Your task to perform on an android device: turn on priority inbox in the gmail app Image 0: 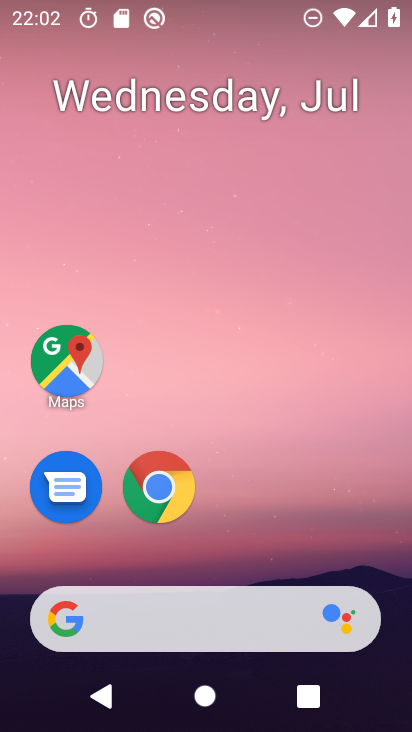
Step 0: drag from (378, 520) to (396, 101)
Your task to perform on an android device: turn on priority inbox in the gmail app Image 1: 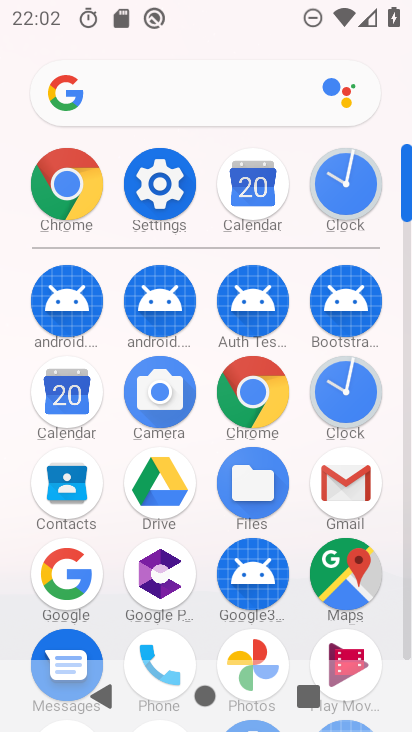
Step 1: click (356, 475)
Your task to perform on an android device: turn on priority inbox in the gmail app Image 2: 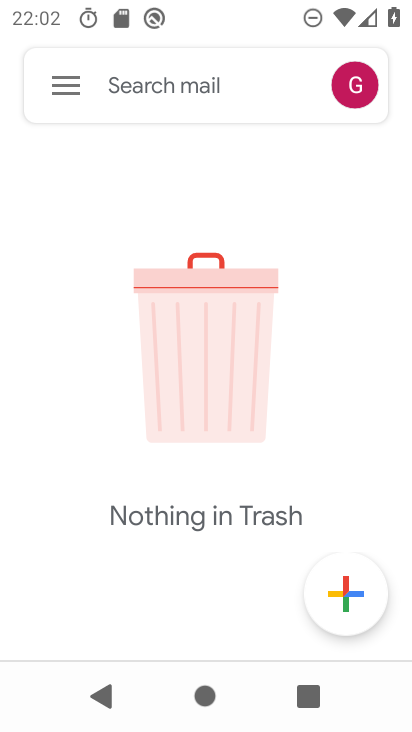
Step 2: click (61, 82)
Your task to perform on an android device: turn on priority inbox in the gmail app Image 3: 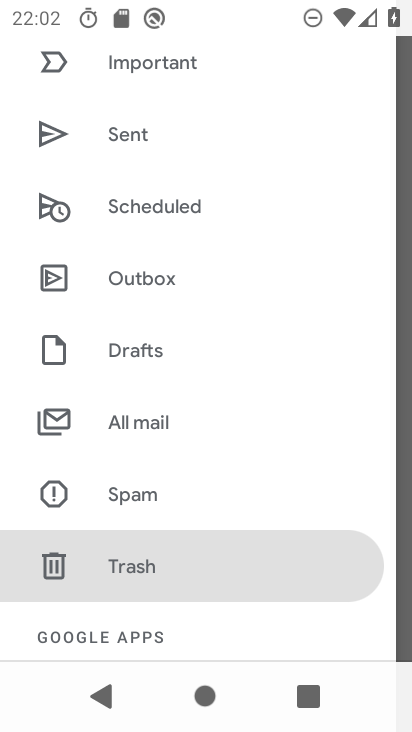
Step 3: drag from (303, 459) to (315, 336)
Your task to perform on an android device: turn on priority inbox in the gmail app Image 4: 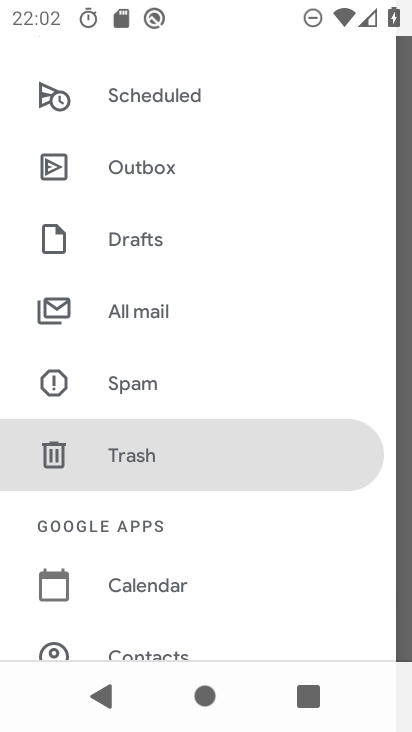
Step 4: drag from (316, 541) to (324, 370)
Your task to perform on an android device: turn on priority inbox in the gmail app Image 5: 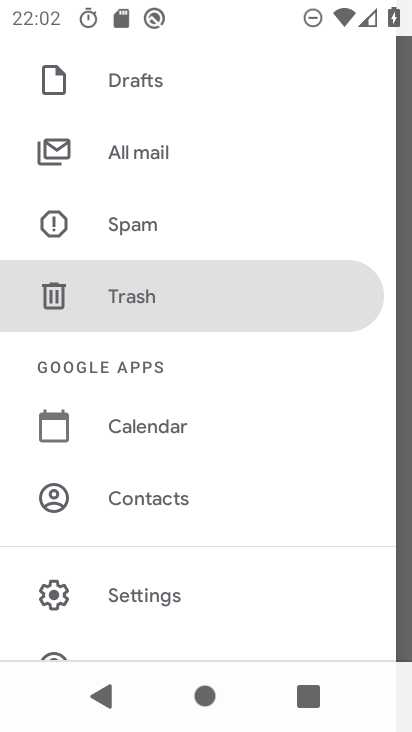
Step 5: drag from (308, 572) to (311, 425)
Your task to perform on an android device: turn on priority inbox in the gmail app Image 6: 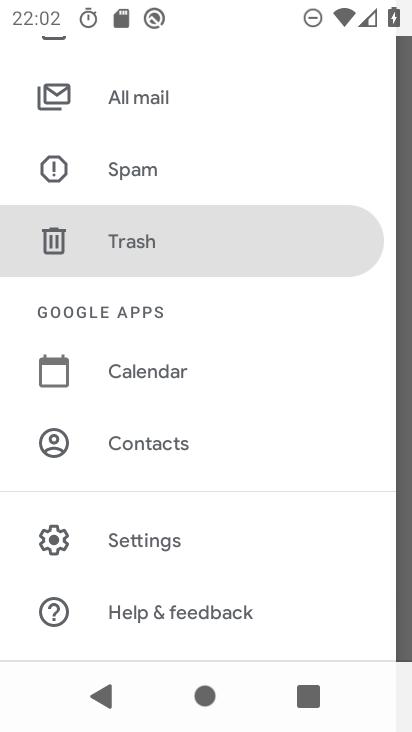
Step 6: click (269, 538)
Your task to perform on an android device: turn on priority inbox in the gmail app Image 7: 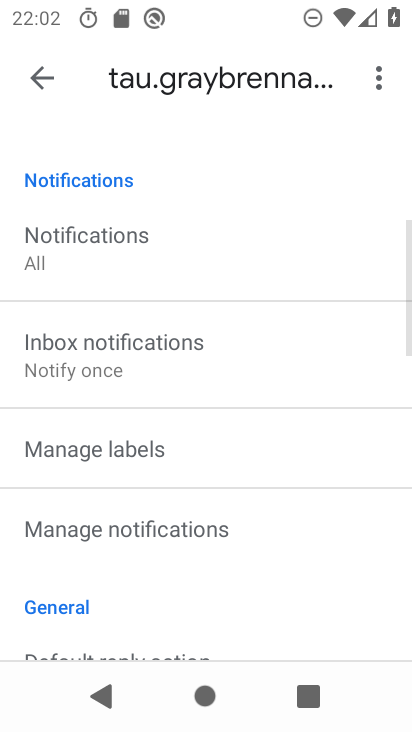
Step 7: drag from (276, 471) to (287, 373)
Your task to perform on an android device: turn on priority inbox in the gmail app Image 8: 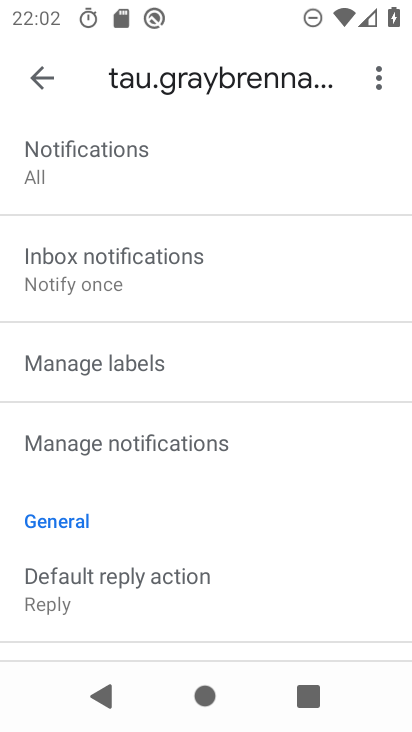
Step 8: drag from (295, 489) to (307, 394)
Your task to perform on an android device: turn on priority inbox in the gmail app Image 9: 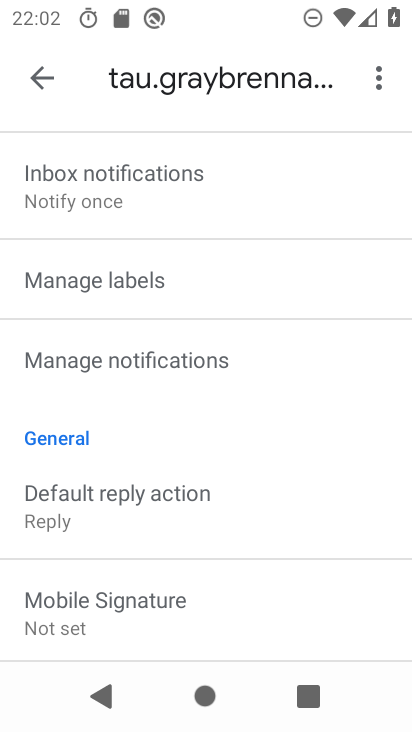
Step 9: drag from (309, 270) to (312, 393)
Your task to perform on an android device: turn on priority inbox in the gmail app Image 10: 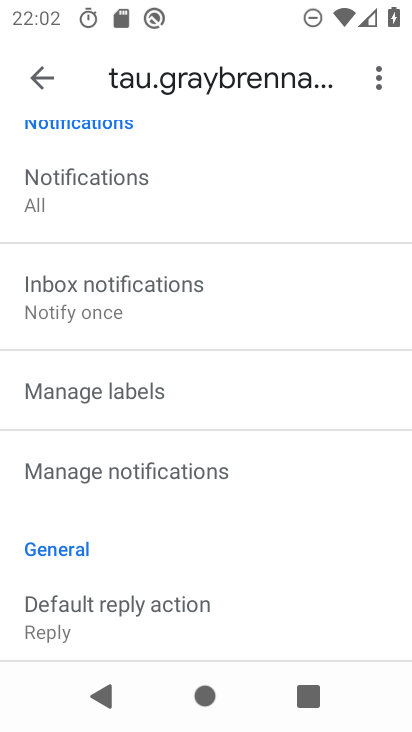
Step 10: drag from (311, 261) to (304, 393)
Your task to perform on an android device: turn on priority inbox in the gmail app Image 11: 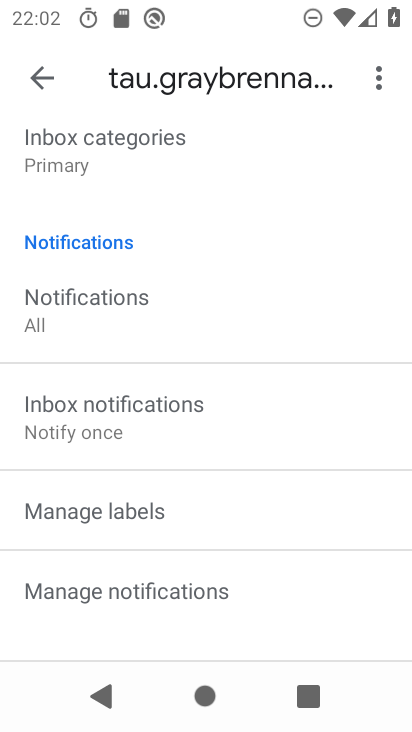
Step 11: drag from (293, 231) to (295, 367)
Your task to perform on an android device: turn on priority inbox in the gmail app Image 12: 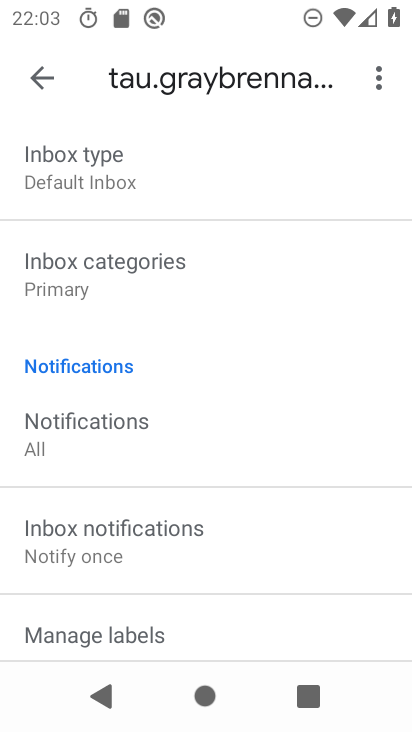
Step 12: drag from (281, 209) to (282, 509)
Your task to perform on an android device: turn on priority inbox in the gmail app Image 13: 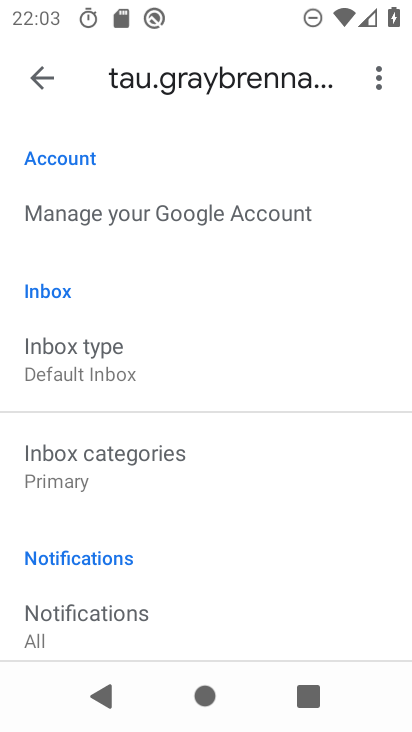
Step 13: click (145, 360)
Your task to perform on an android device: turn on priority inbox in the gmail app Image 14: 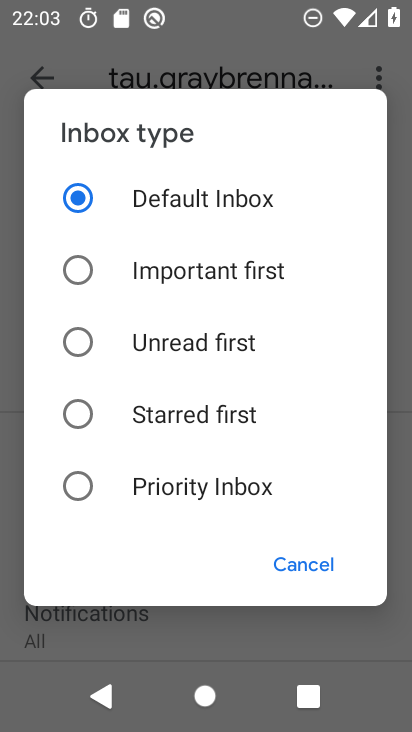
Step 14: click (151, 479)
Your task to perform on an android device: turn on priority inbox in the gmail app Image 15: 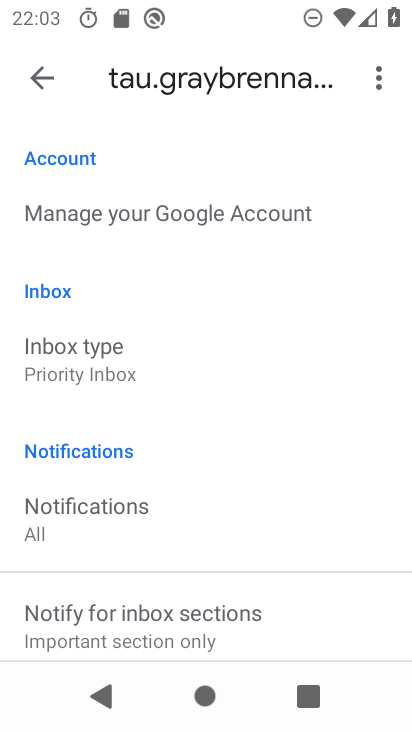
Step 15: task complete